Your task to perform on an android device: turn on notifications settings in the gmail app Image 0: 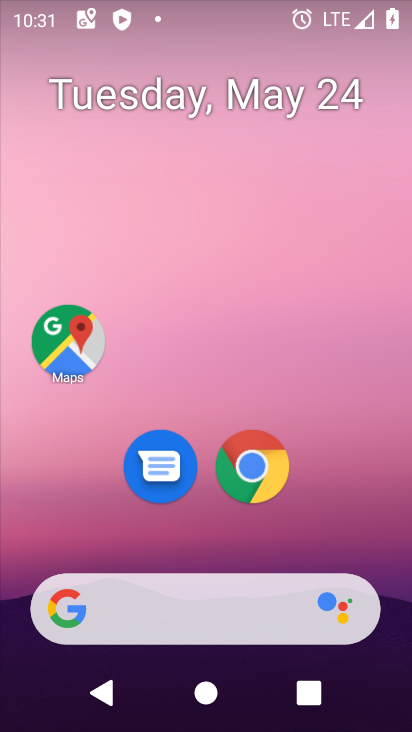
Step 0: drag from (374, 272) to (384, 176)
Your task to perform on an android device: turn on notifications settings in the gmail app Image 1: 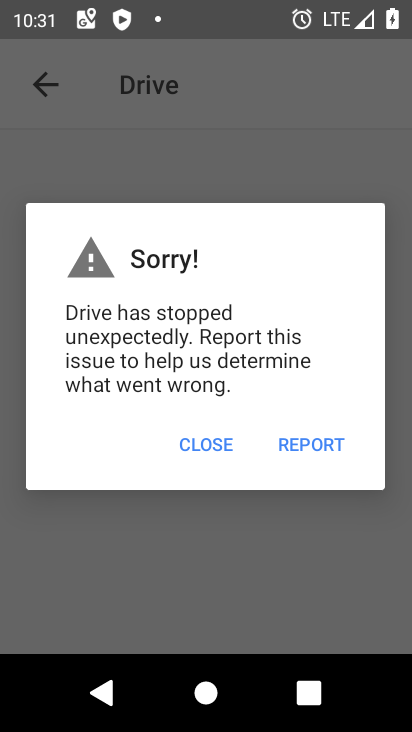
Step 1: press home button
Your task to perform on an android device: turn on notifications settings in the gmail app Image 2: 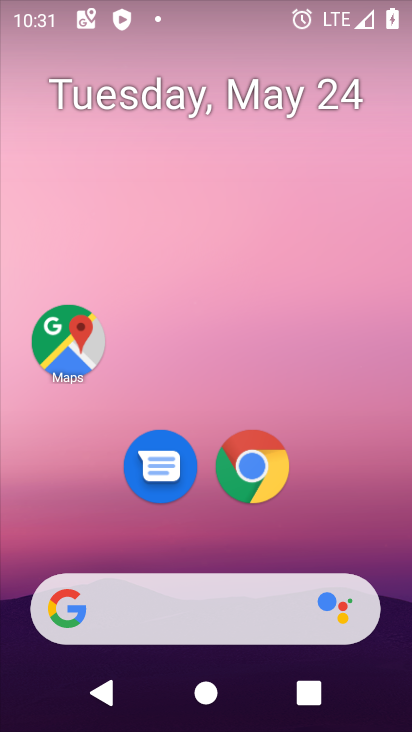
Step 2: drag from (384, 561) to (394, 216)
Your task to perform on an android device: turn on notifications settings in the gmail app Image 3: 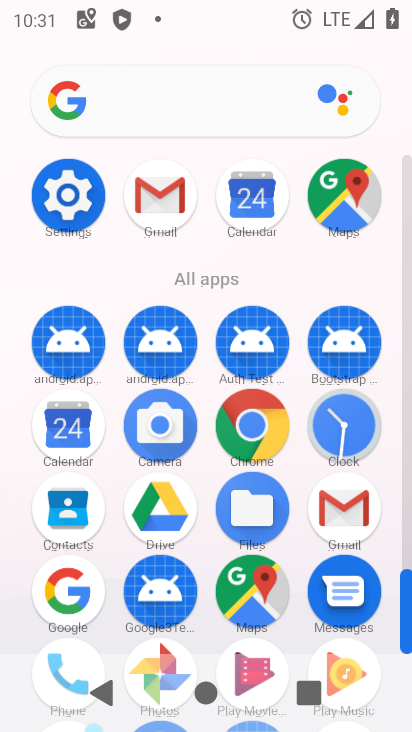
Step 3: click (359, 519)
Your task to perform on an android device: turn on notifications settings in the gmail app Image 4: 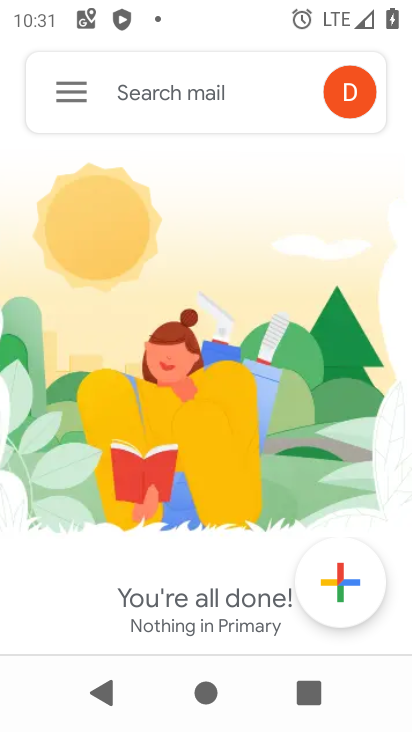
Step 4: click (62, 109)
Your task to perform on an android device: turn on notifications settings in the gmail app Image 5: 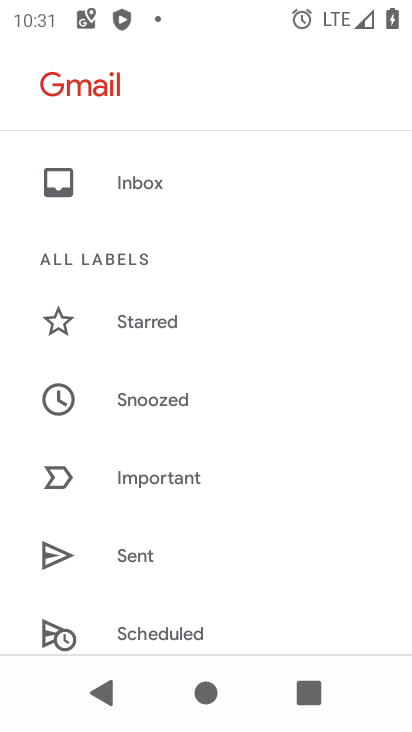
Step 5: drag from (325, 474) to (332, 368)
Your task to perform on an android device: turn on notifications settings in the gmail app Image 6: 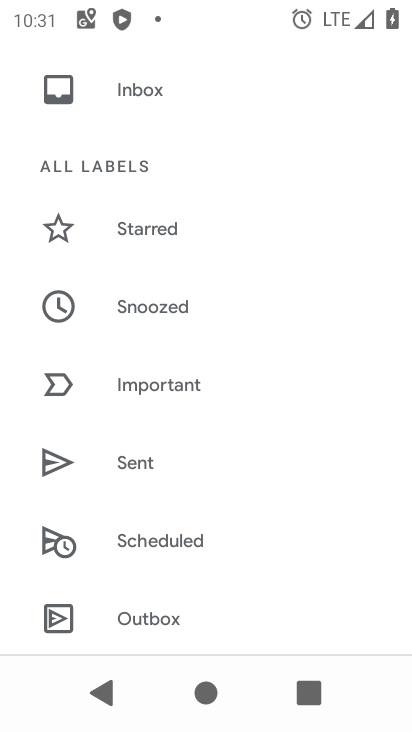
Step 6: drag from (320, 551) to (328, 477)
Your task to perform on an android device: turn on notifications settings in the gmail app Image 7: 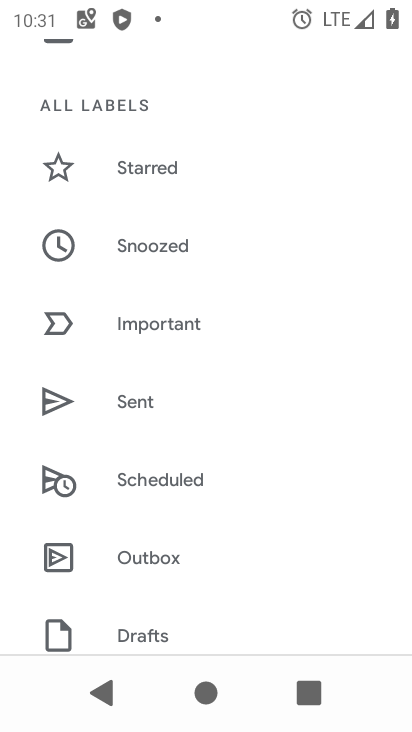
Step 7: drag from (313, 563) to (325, 471)
Your task to perform on an android device: turn on notifications settings in the gmail app Image 8: 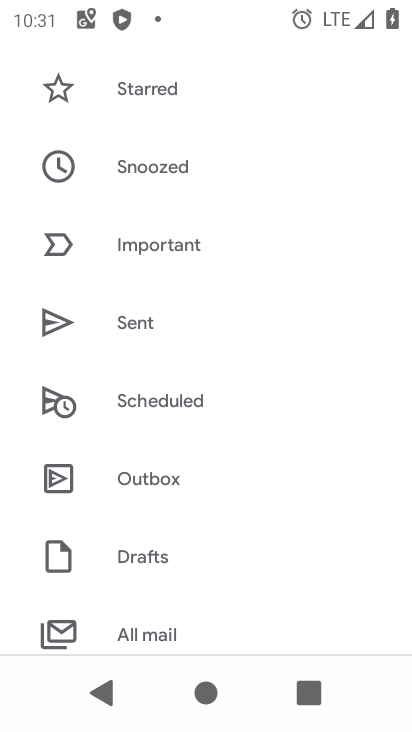
Step 8: drag from (323, 548) to (323, 430)
Your task to perform on an android device: turn on notifications settings in the gmail app Image 9: 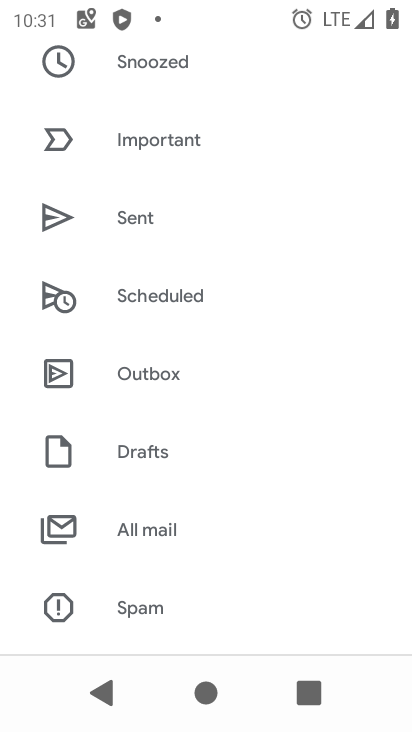
Step 9: drag from (314, 535) to (314, 413)
Your task to perform on an android device: turn on notifications settings in the gmail app Image 10: 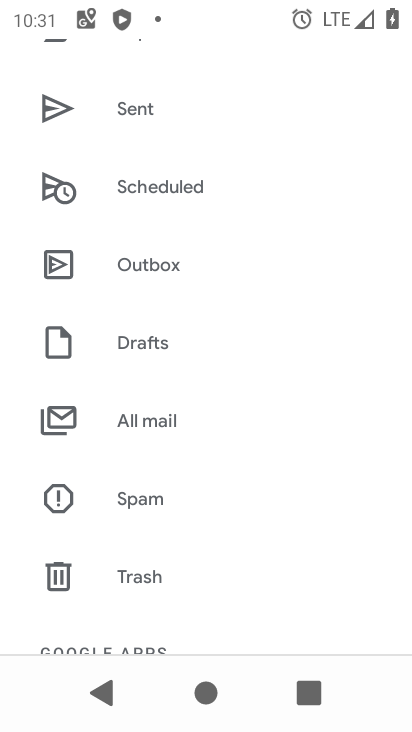
Step 10: drag from (310, 514) to (317, 423)
Your task to perform on an android device: turn on notifications settings in the gmail app Image 11: 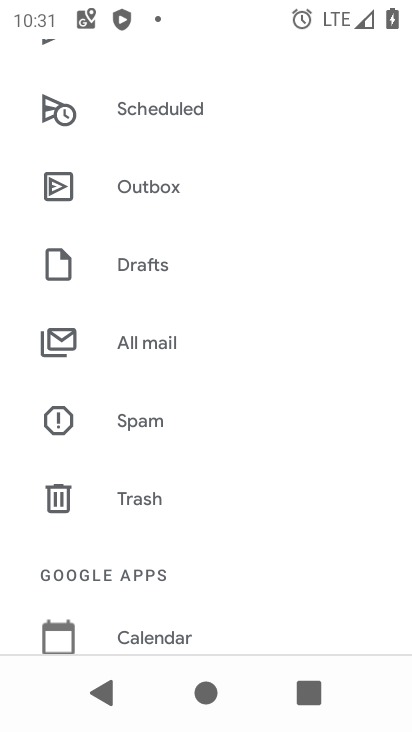
Step 11: drag from (304, 503) to (314, 395)
Your task to perform on an android device: turn on notifications settings in the gmail app Image 12: 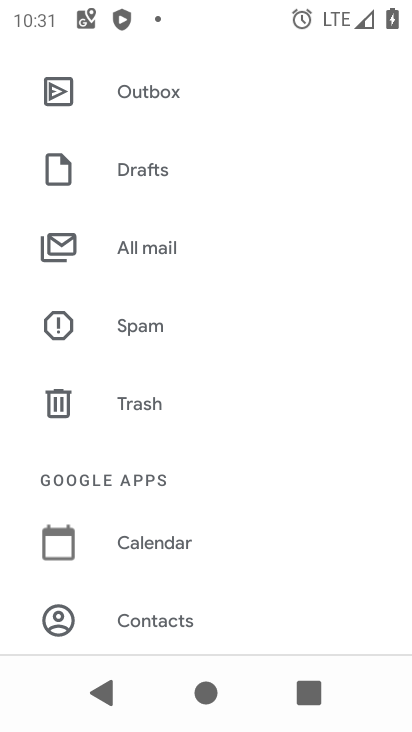
Step 12: drag from (330, 588) to (321, 500)
Your task to perform on an android device: turn on notifications settings in the gmail app Image 13: 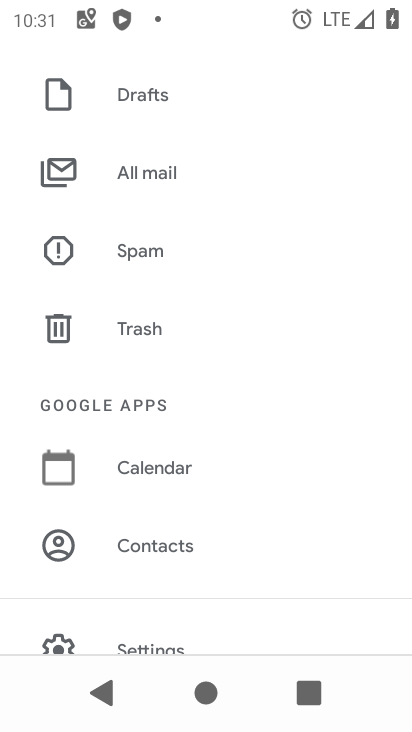
Step 13: drag from (321, 572) to (321, 467)
Your task to perform on an android device: turn on notifications settings in the gmail app Image 14: 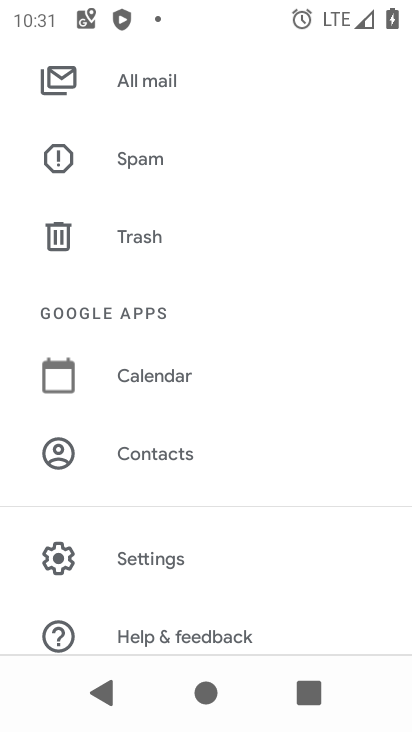
Step 14: drag from (295, 578) to (301, 448)
Your task to perform on an android device: turn on notifications settings in the gmail app Image 15: 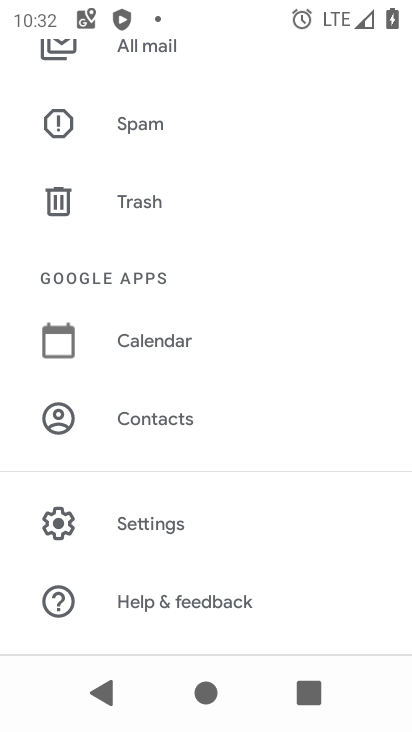
Step 15: click (181, 530)
Your task to perform on an android device: turn on notifications settings in the gmail app Image 16: 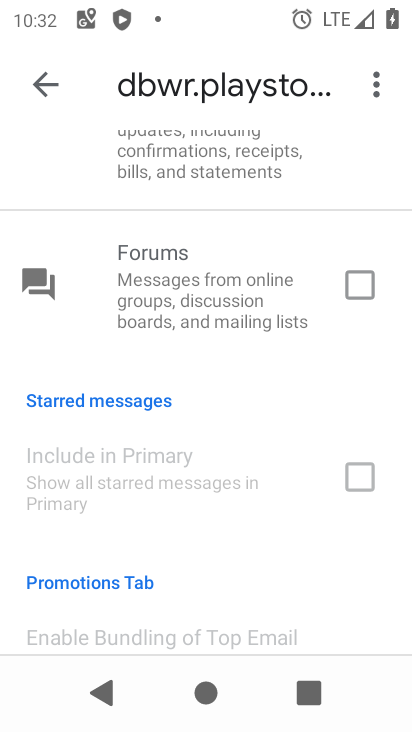
Step 16: click (41, 91)
Your task to perform on an android device: turn on notifications settings in the gmail app Image 17: 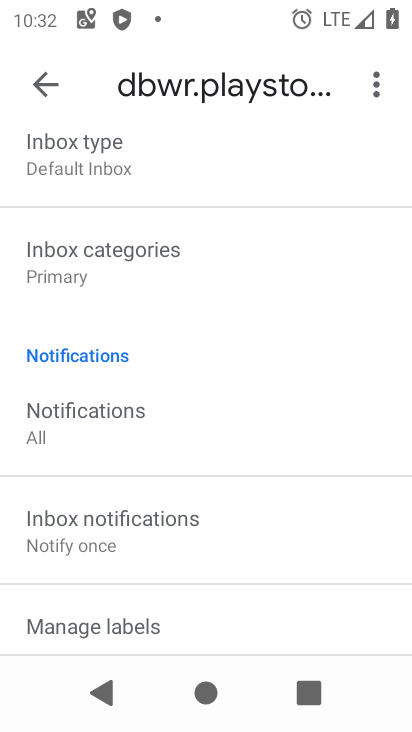
Step 17: drag from (263, 297) to (271, 372)
Your task to perform on an android device: turn on notifications settings in the gmail app Image 18: 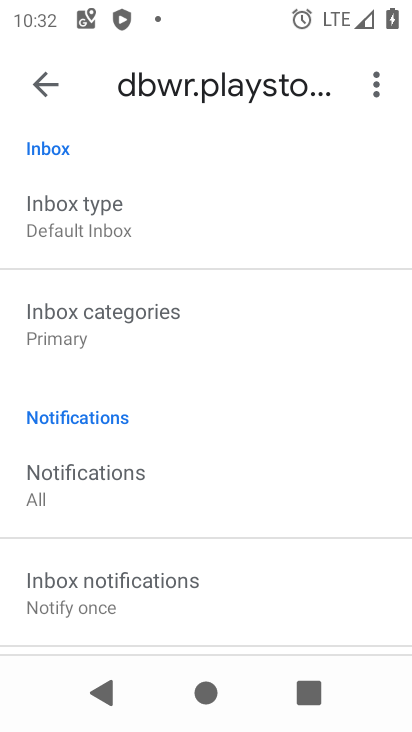
Step 18: drag from (269, 265) to (269, 374)
Your task to perform on an android device: turn on notifications settings in the gmail app Image 19: 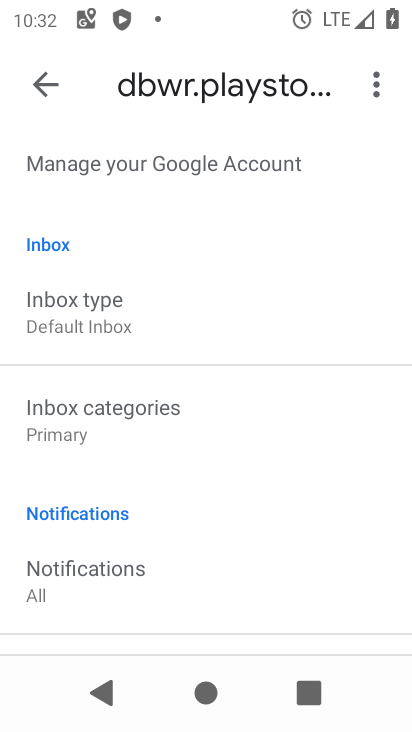
Step 19: drag from (269, 251) to (273, 412)
Your task to perform on an android device: turn on notifications settings in the gmail app Image 20: 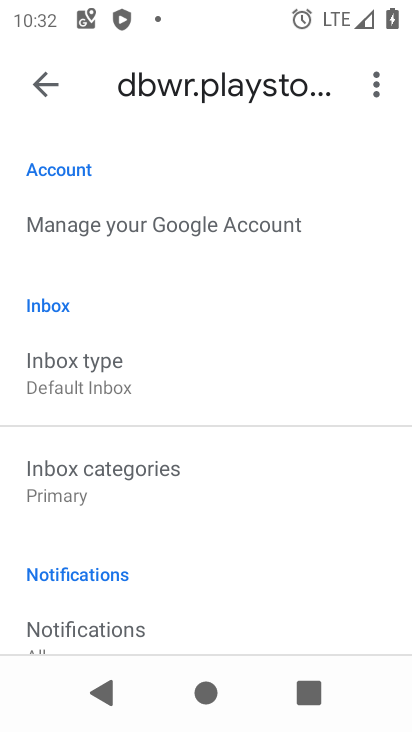
Step 20: drag from (294, 458) to (297, 381)
Your task to perform on an android device: turn on notifications settings in the gmail app Image 21: 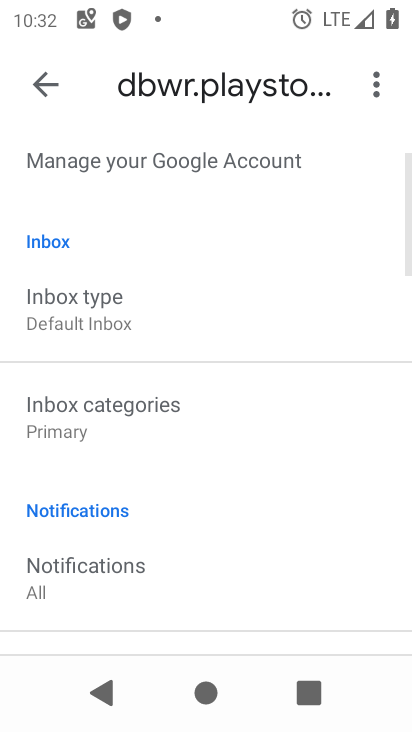
Step 21: drag from (296, 483) to (307, 394)
Your task to perform on an android device: turn on notifications settings in the gmail app Image 22: 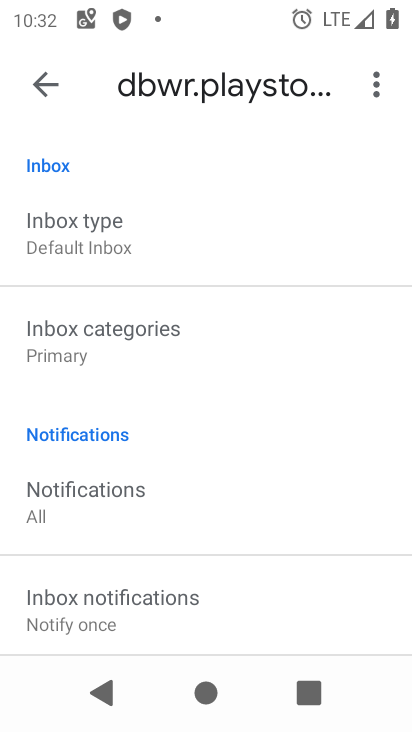
Step 22: drag from (296, 497) to (302, 413)
Your task to perform on an android device: turn on notifications settings in the gmail app Image 23: 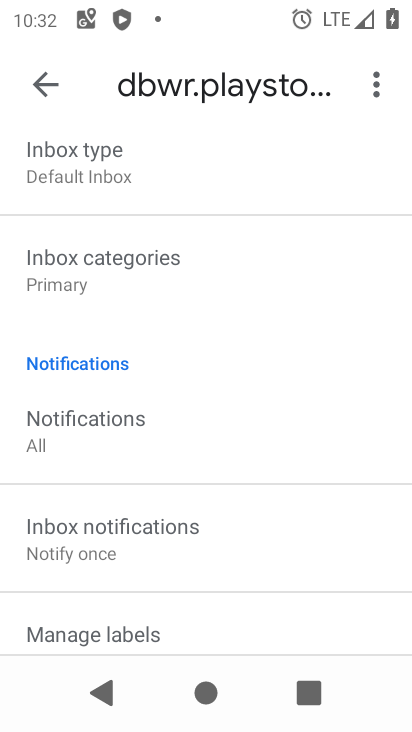
Step 23: drag from (302, 506) to (308, 429)
Your task to perform on an android device: turn on notifications settings in the gmail app Image 24: 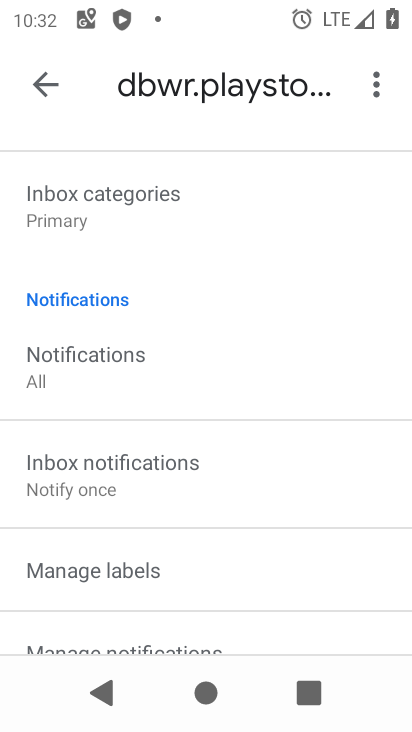
Step 24: drag from (301, 516) to (308, 428)
Your task to perform on an android device: turn on notifications settings in the gmail app Image 25: 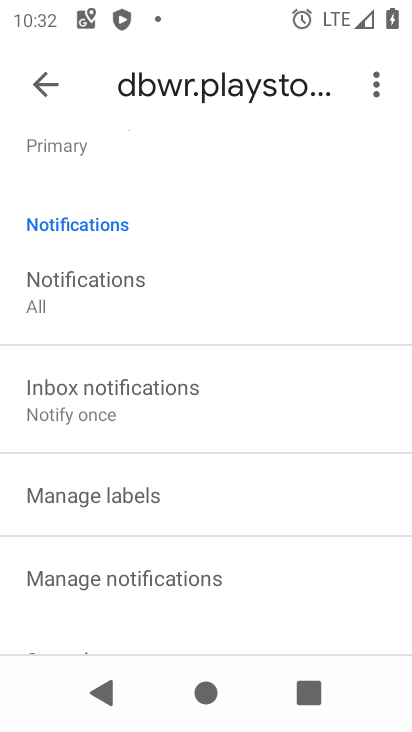
Step 25: drag from (288, 507) to (290, 427)
Your task to perform on an android device: turn on notifications settings in the gmail app Image 26: 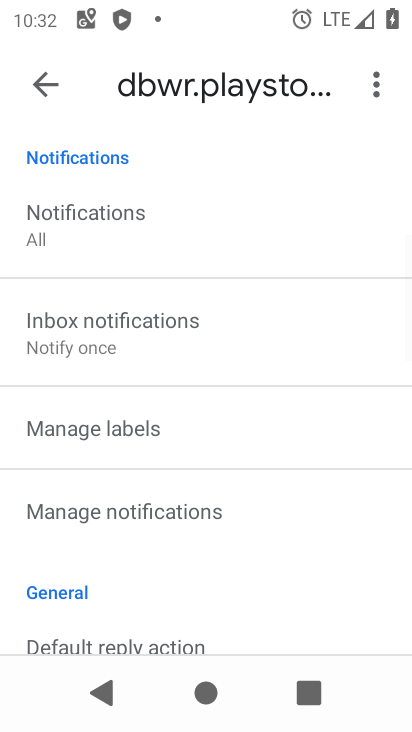
Step 26: drag from (308, 526) to (311, 430)
Your task to perform on an android device: turn on notifications settings in the gmail app Image 27: 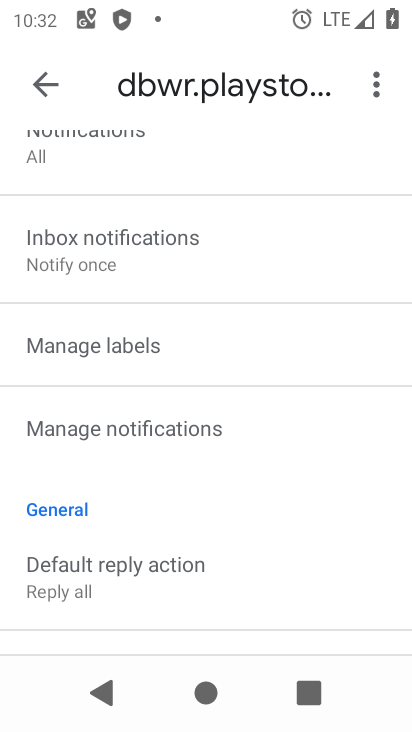
Step 27: drag from (320, 524) to (315, 435)
Your task to perform on an android device: turn on notifications settings in the gmail app Image 28: 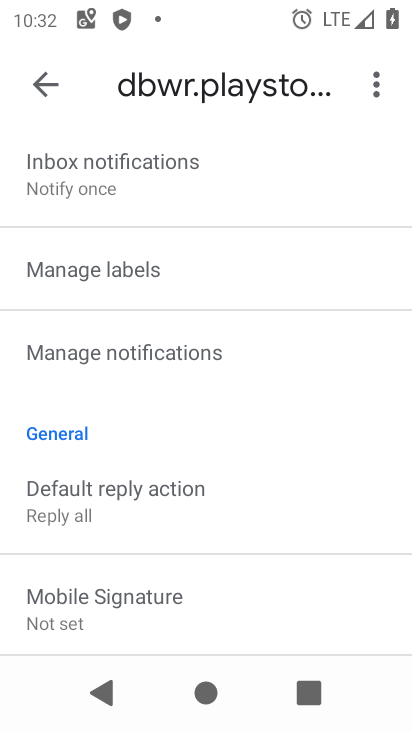
Step 28: drag from (316, 538) to (313, 447)
Your task to perform on an android device: turn on notifications settings in the gmail app Image 29: 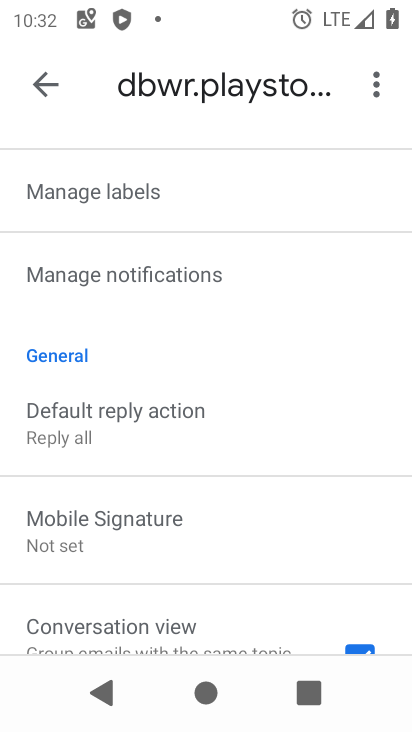
Step 29: click (206, 291)
Your task to perform on an android device: turn on notifications settings in the gmail app Image 30: 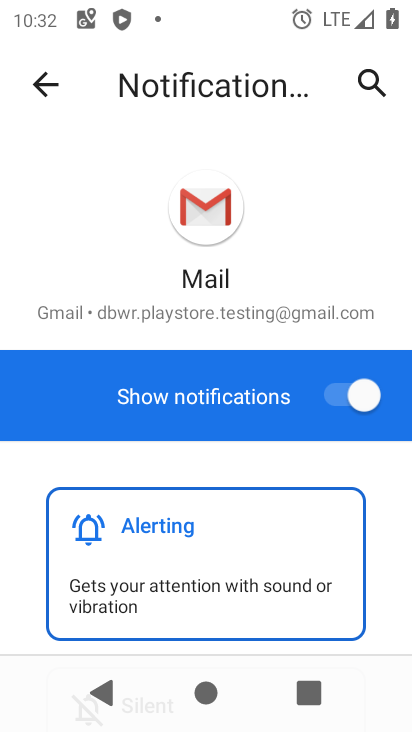
Step 30: task complete